Your task to perform on an android device: turn off location Image 0: 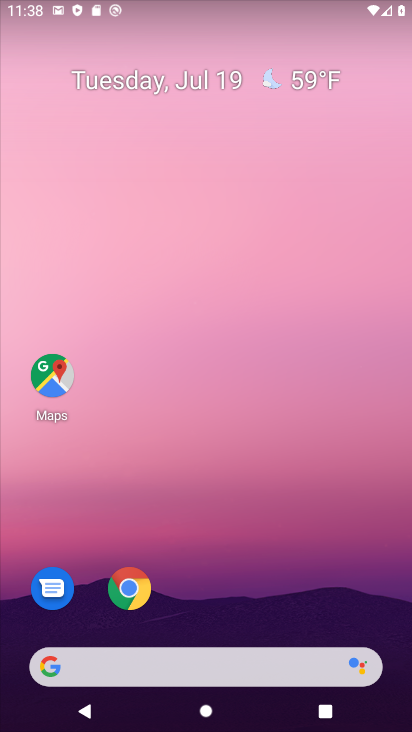
Step 0: drag from (394, 666) to (358, 77)
Your task to perform on an android device: turn off location Image 1: 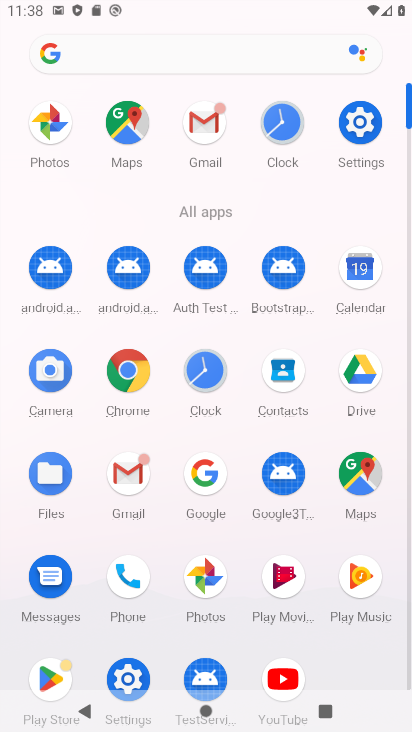
Step 1: click (346, 123)
Your task to perform on an android device: turn off location Image 2: 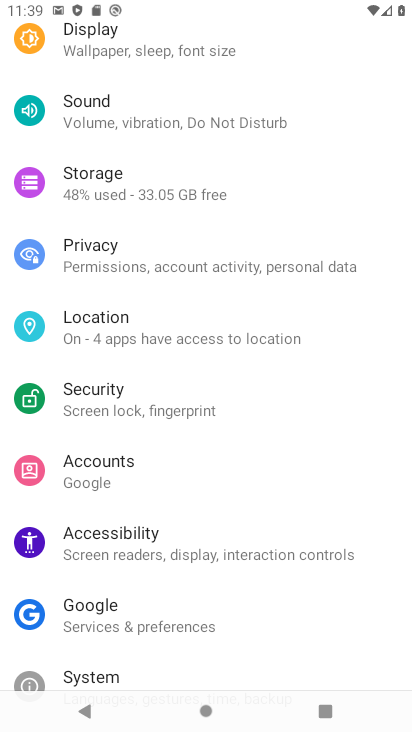
Step 2: click (84, 316)
Your task to perform on an android device: turn off location Image 3: 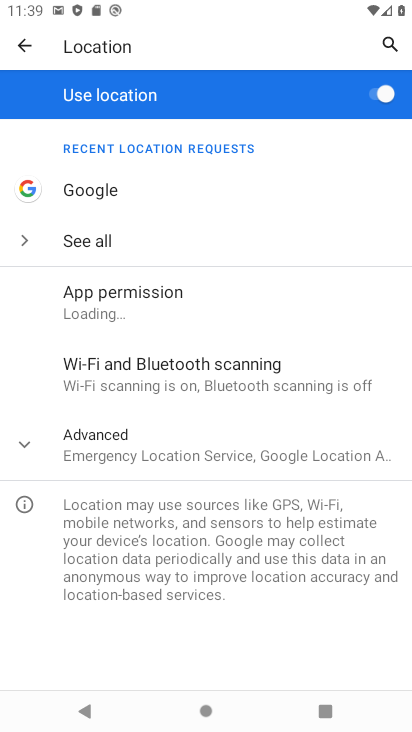
Step 3: click (376, 92)
Your task to perform on an android device: turn off location Image 4: 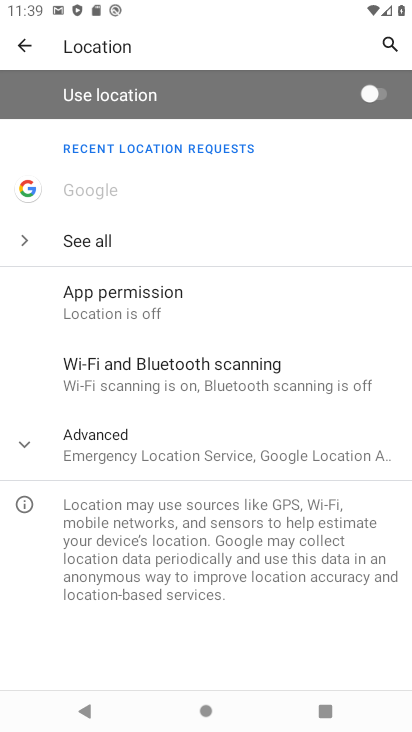
Step 4: task complete